Your task to perform on an android device: Find coffee shops on Maps Image 0: 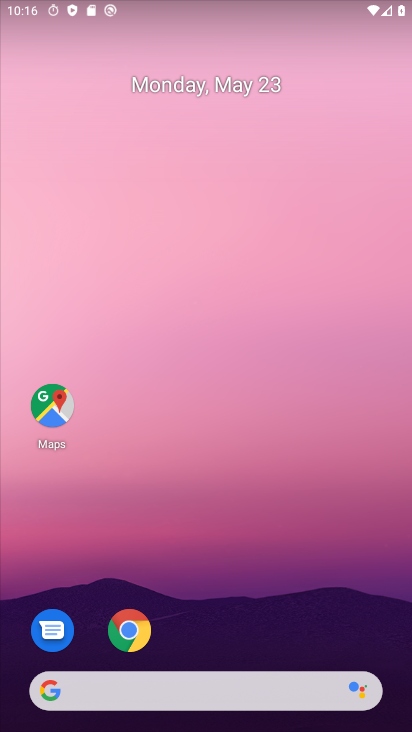
Step 0: click (52, 407)
Your task to perform on an android device: Find coffee shops on Maps Image 1: 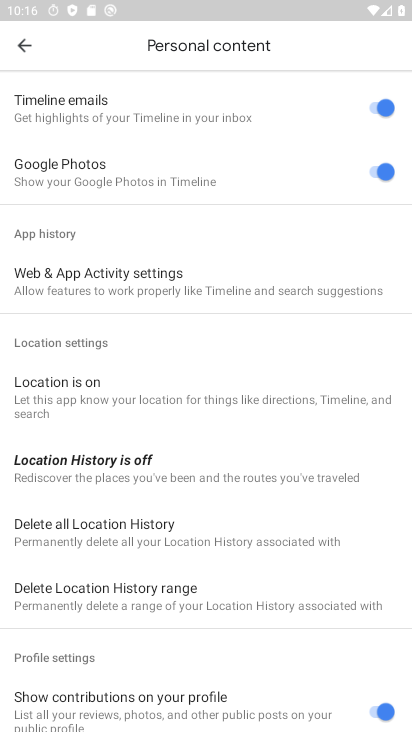
Step 1: click (26, 47)
Your task to perform on an android device: Find coffee shops on Maps Image 2: 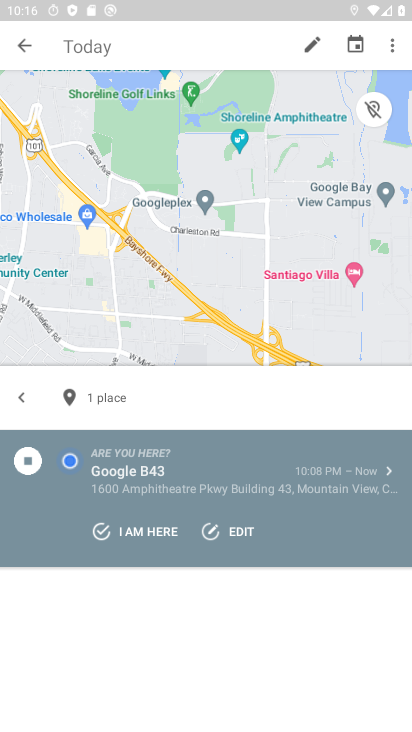
Step 2: click (24, 49)
Your task to perform on an android device: Find coffee shops on Maps Image 3: 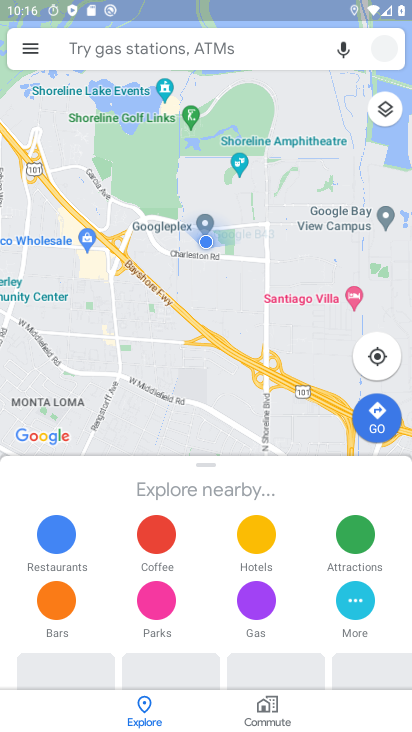
Step 3: click (83, 49)
Your task to perform on an android device: Find coffee shops on Maps Image 4: 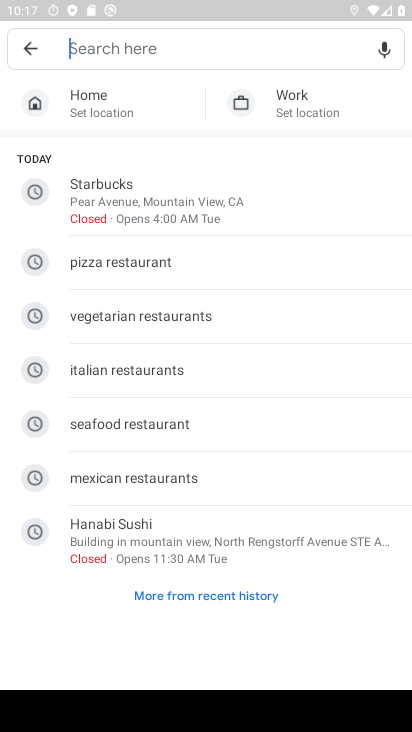
Step 4: type "coffee shops"
Your task to perform on an android device: Find coffee shops on Maps Image 5: 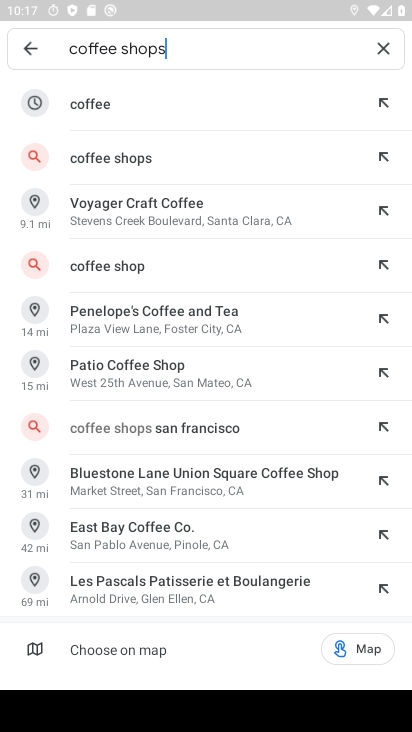
Step 5: click (130, 160)
Your task to perform on an android device: Find coffee shops on Maps Image 6: 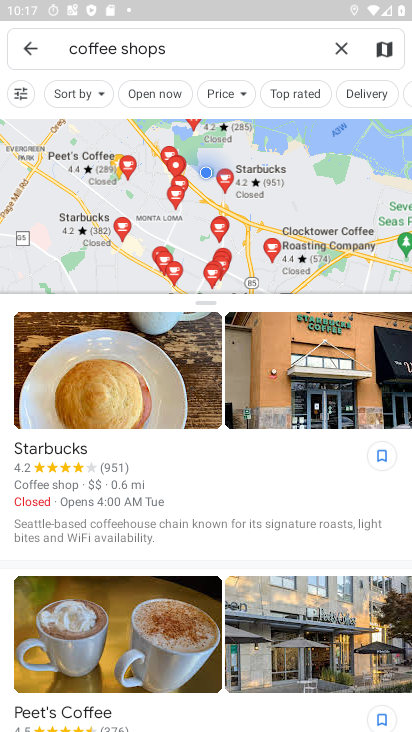
Step 6: task complete